Your task to perform on an android device: find photos in the google photos app Image 0: 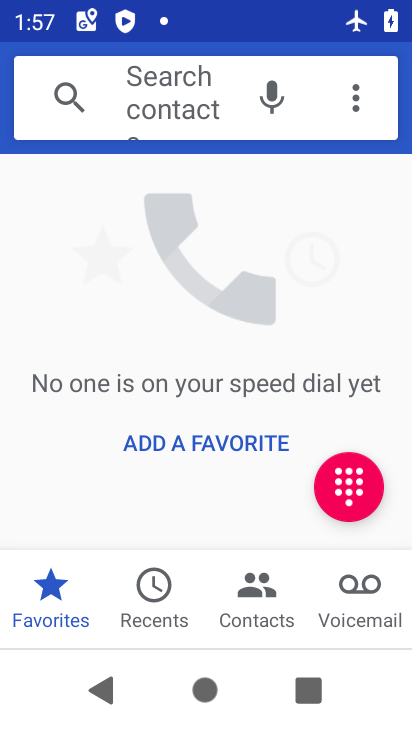
Step 0: press home button
Your task to perform on an android device: find photos in the google photos app Image 1: 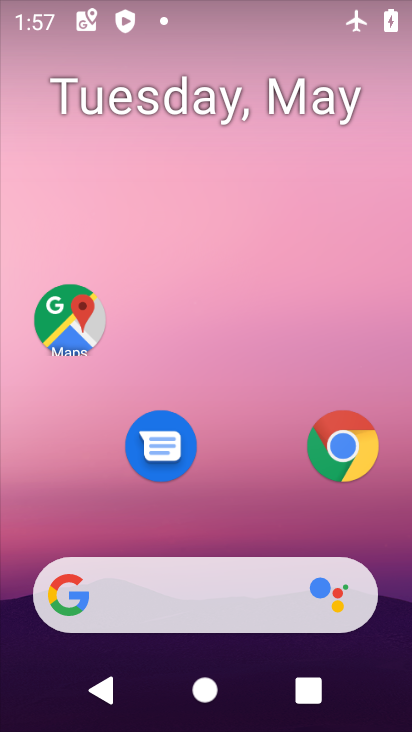
Step 1: drag from (214, 547) to (163, 45)
Your task to perform on an android device: find photos in the google photos app Image 2: 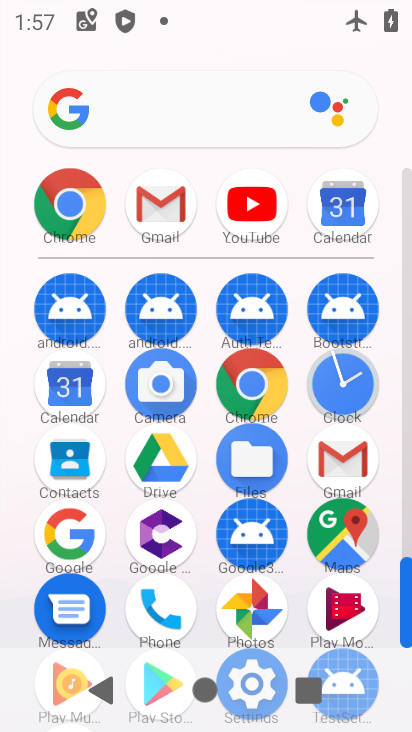
Step 2: click (260, 591)
Your task to perform on an android device: find photos in the google photos app Image 3: 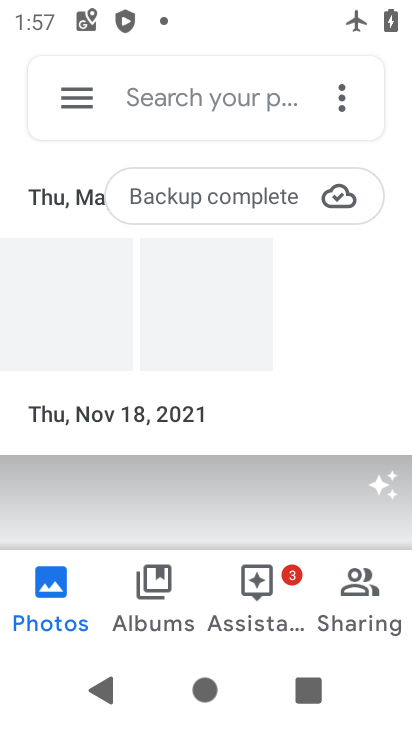
Step 3: click (51, 595)
Your task to perform on an android device: find photos in the google photos app Image 4: 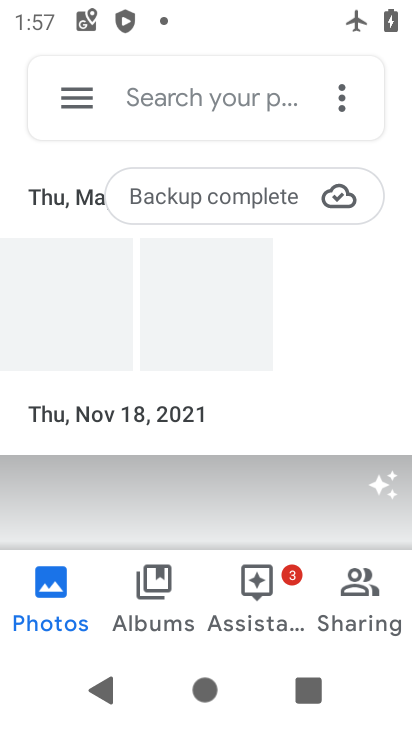
Step 4: task complete